Your task to perform on an android device: Go to network settings Image 0: 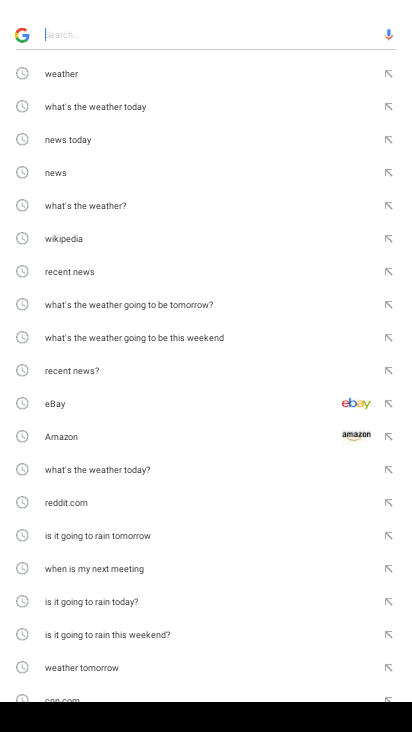
Step 0: press home button
Your task to perform on an android device: Go to network settings Image 1: 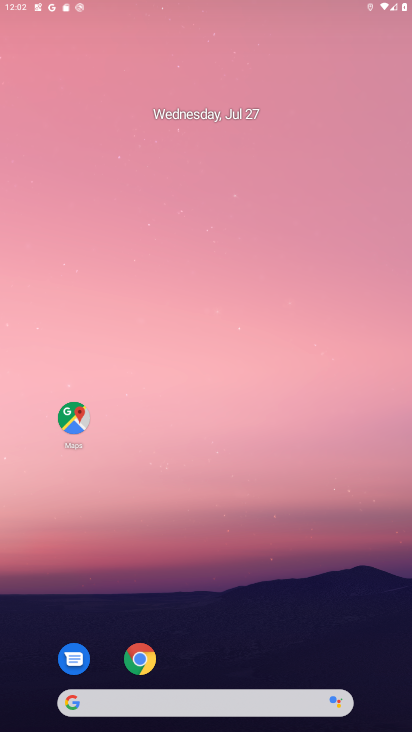
Step 1: drag from (233, 682) to (298, 0)
Your task to perform on an android device: Go to network settings Image 2: 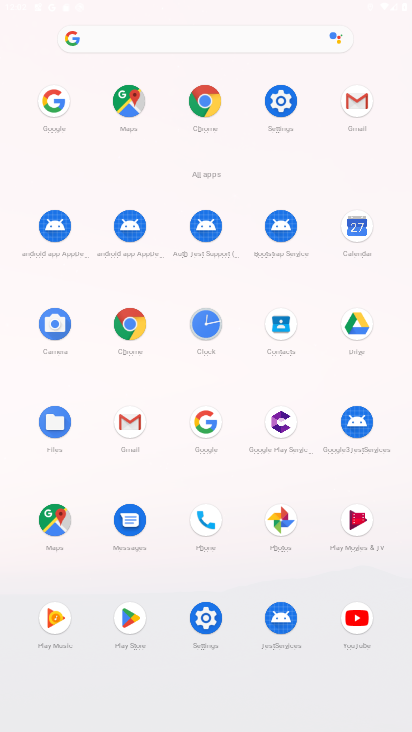
Step 2: click (277, 92)
Your task to perform on an android device: Go to network settings Image 3: 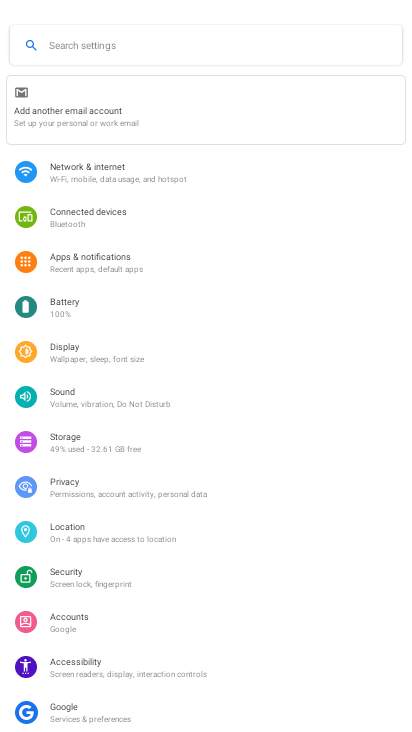
Step 3: click (125, 177)
Your task to perform on an android device: Go to network settings Image 4: 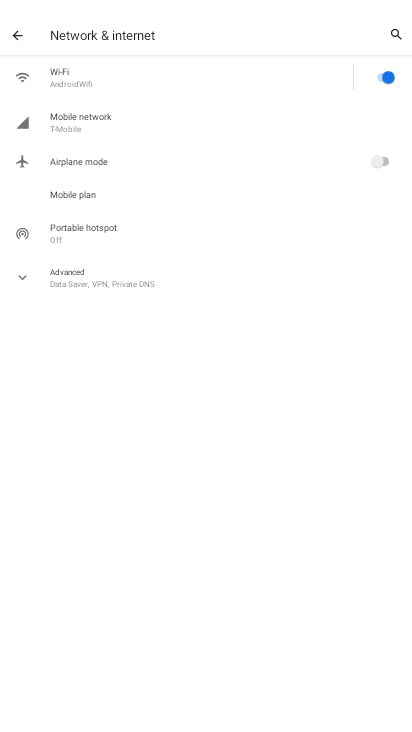
Step 4: click (106, 127)
Your task to perform on an android device: Go to network settings Image 5: 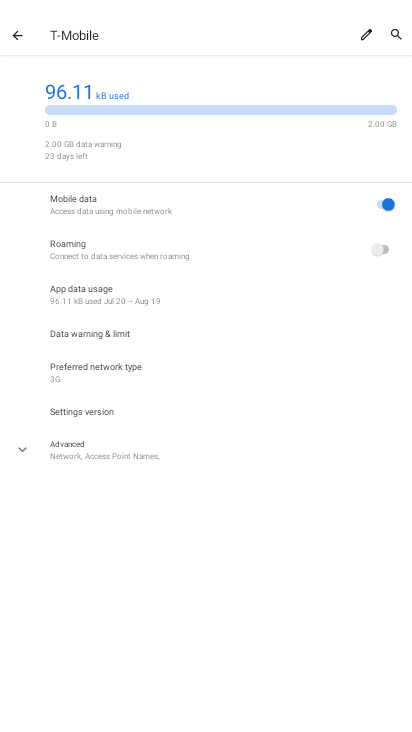
Step 5: task complete